Your task to perform on an android device: toggle notification dots Image 0: 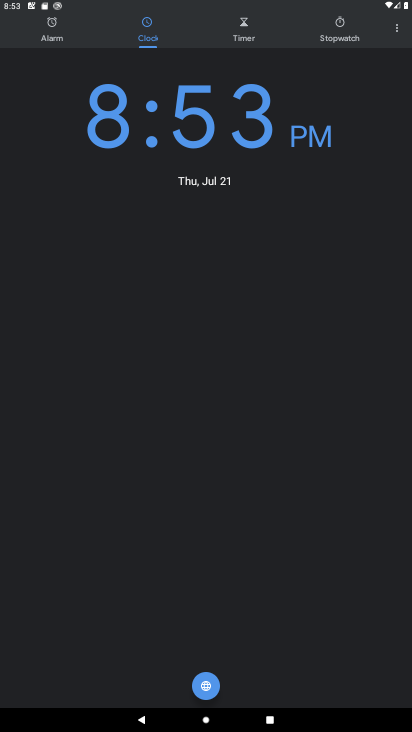
Step 0: press home button
Your task to perform on an android device: toggle notification dots Image 1: 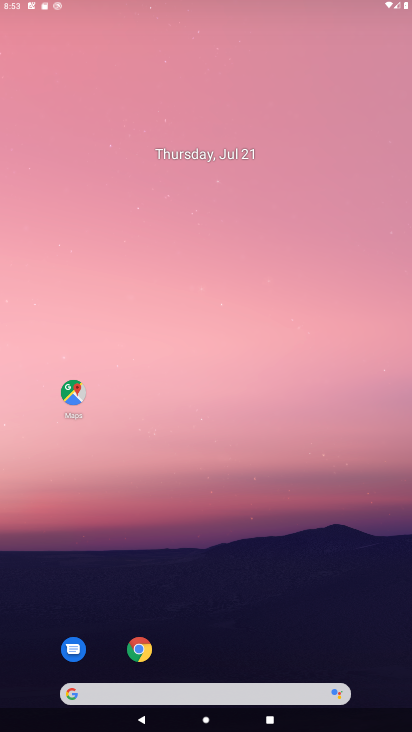
Step 1: drag from (261, 670) to (292, 109)
Your task to perform on an android device: toggle notification dots Image 2: 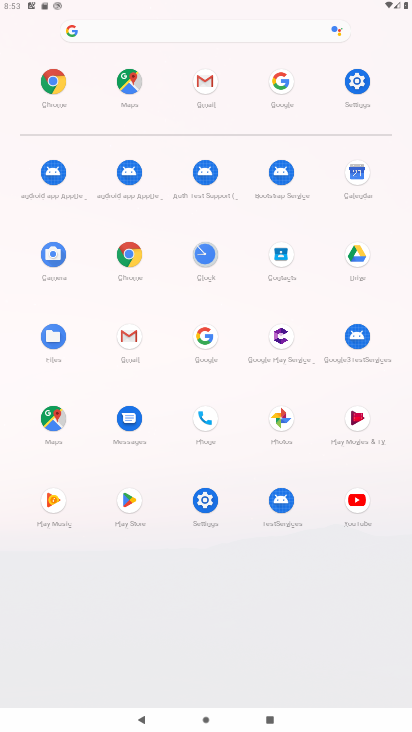
Step 2: click (358, 84)
Your task to perform on an android device: toggle notification dots Image 3: 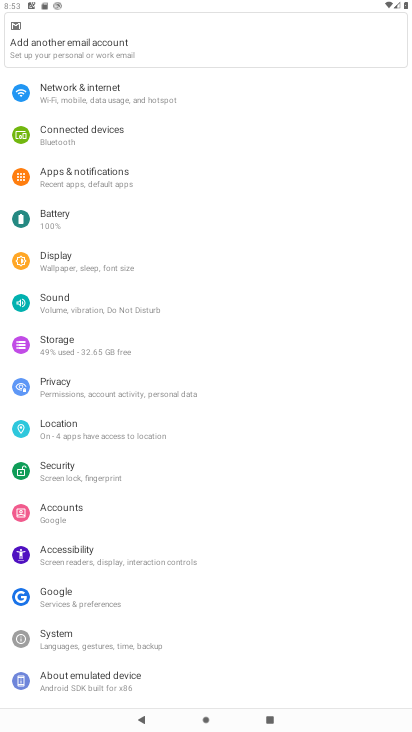
Step 3: click (106, 182)
Your task to perform on an android device: toggle notification dots Image 4: 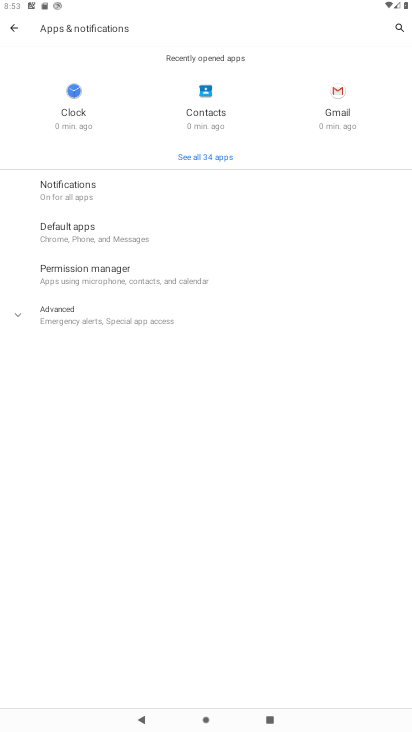
Step 4: click (96, 190)
Your task to perform on an android device: toggle notification dots Image 5: 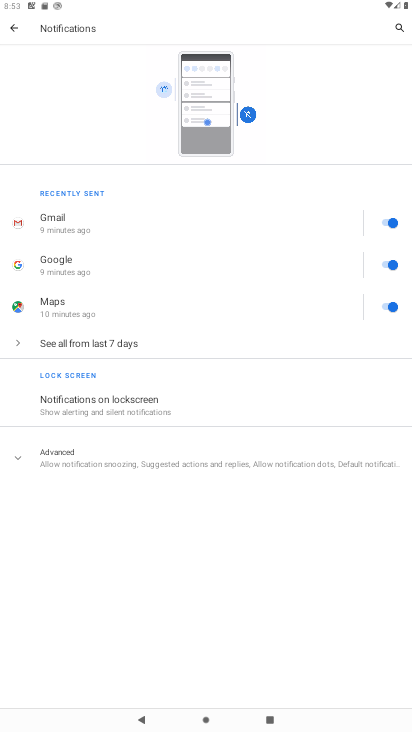
Step 5: click (96, 449)
Your task to perform on an android device: toggle notification dots Image 6: 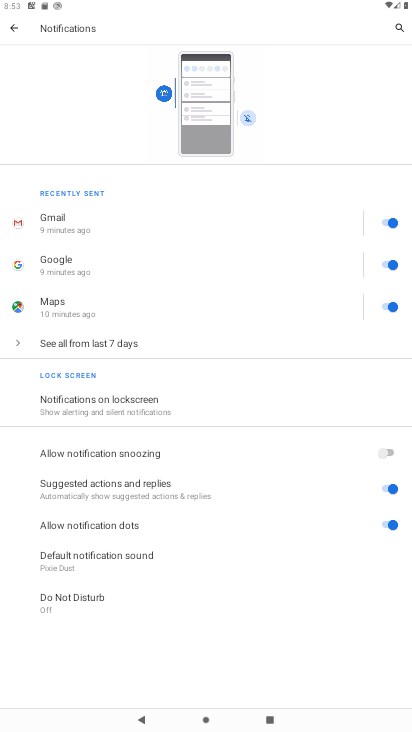
Step 6: click (386, 523)
Your task to perform on an android device: toggle notification dots Image 7: 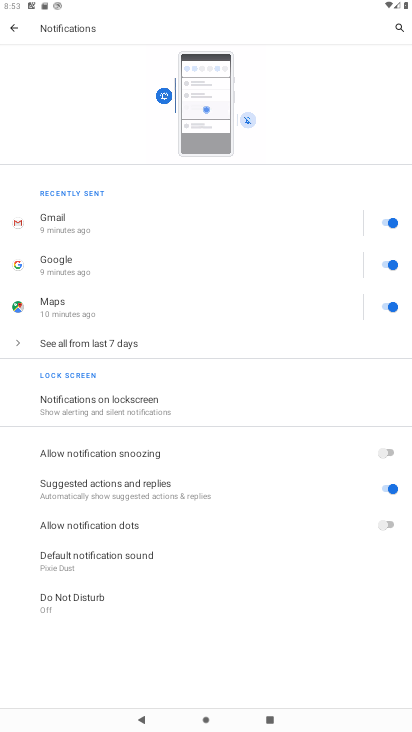
Step 7: task complete